Your task to perform on an android device: manage bookmarks in the chrome app Image 0: 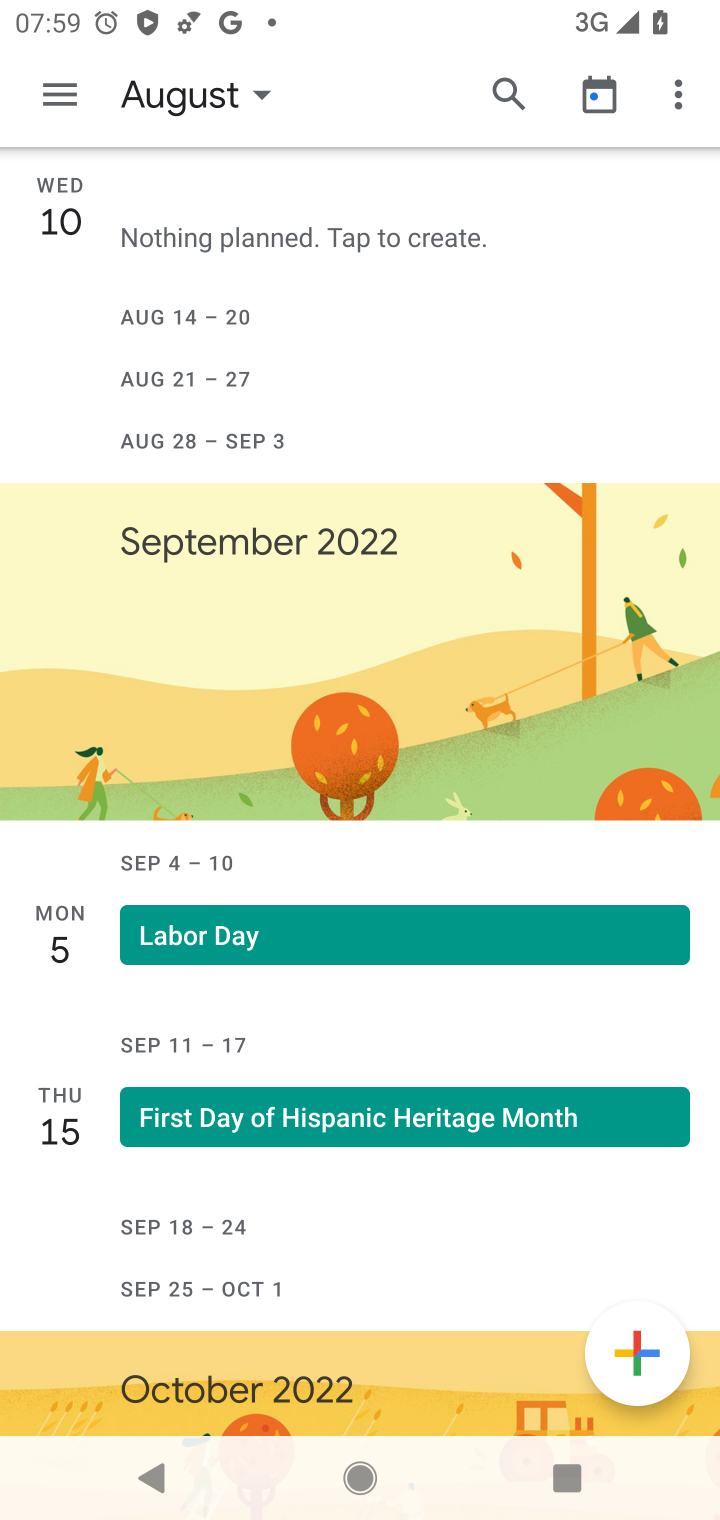
Step 0: press home button
Your task to perform on an android device: manage bookmarks in the chrome app Image 1: 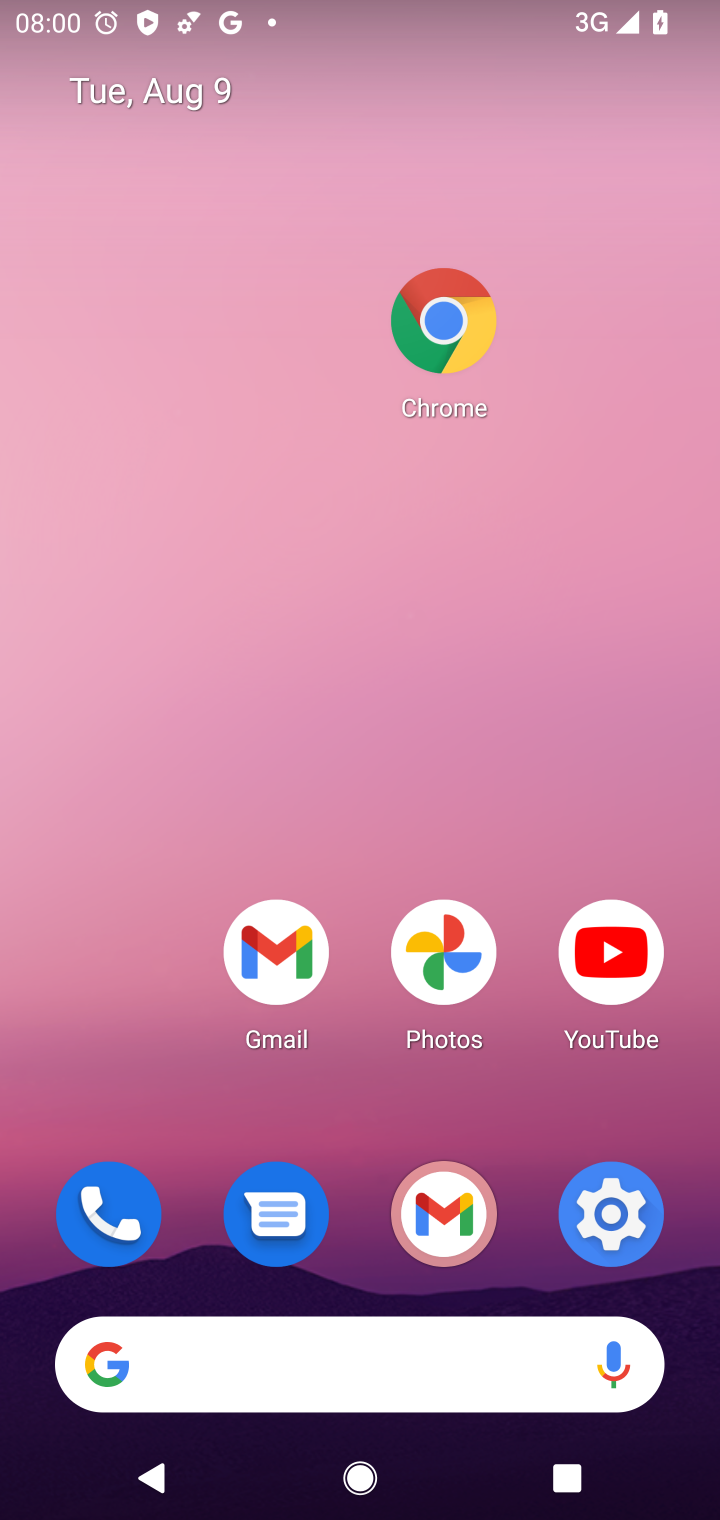
Step 1: click (414, 340)
Your task to perform on an android device: manage bookmarks in the chrome app Image 2: 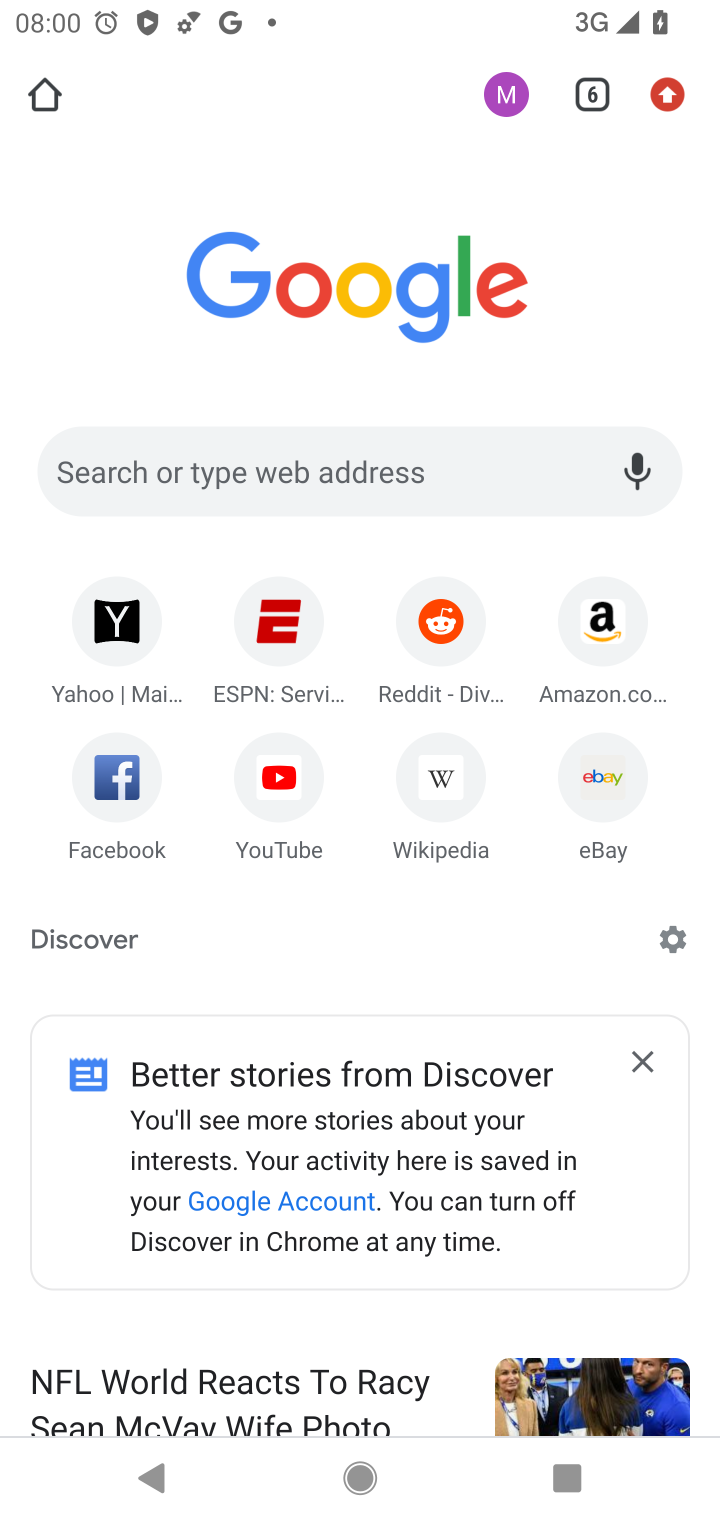
Step 2: click (658, 97)
Your task to perform on an android device: manage bookmarks in the chrome app Image 3: 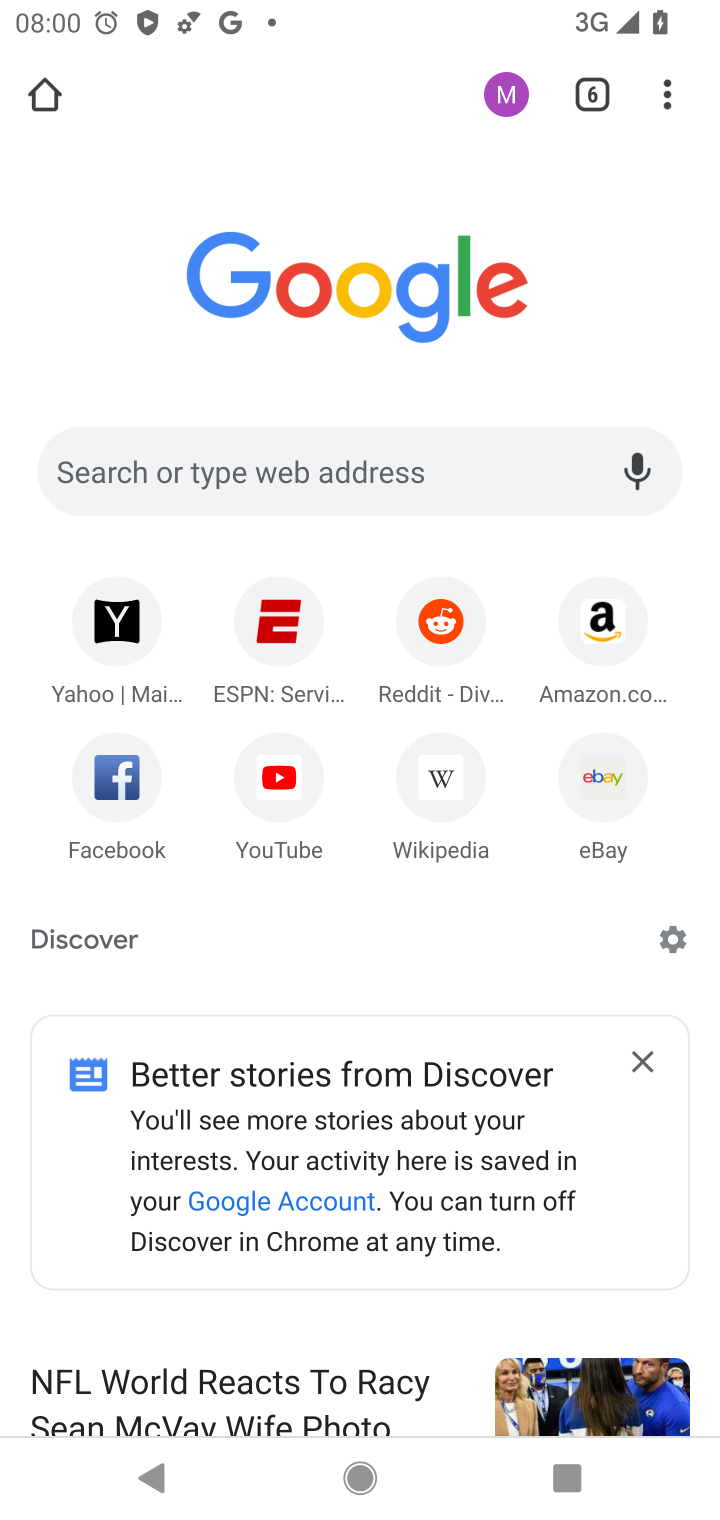
Step 3: click (648, 108)
Your task to perform on an android device: manage bookmarks in the chrome app Image 4: 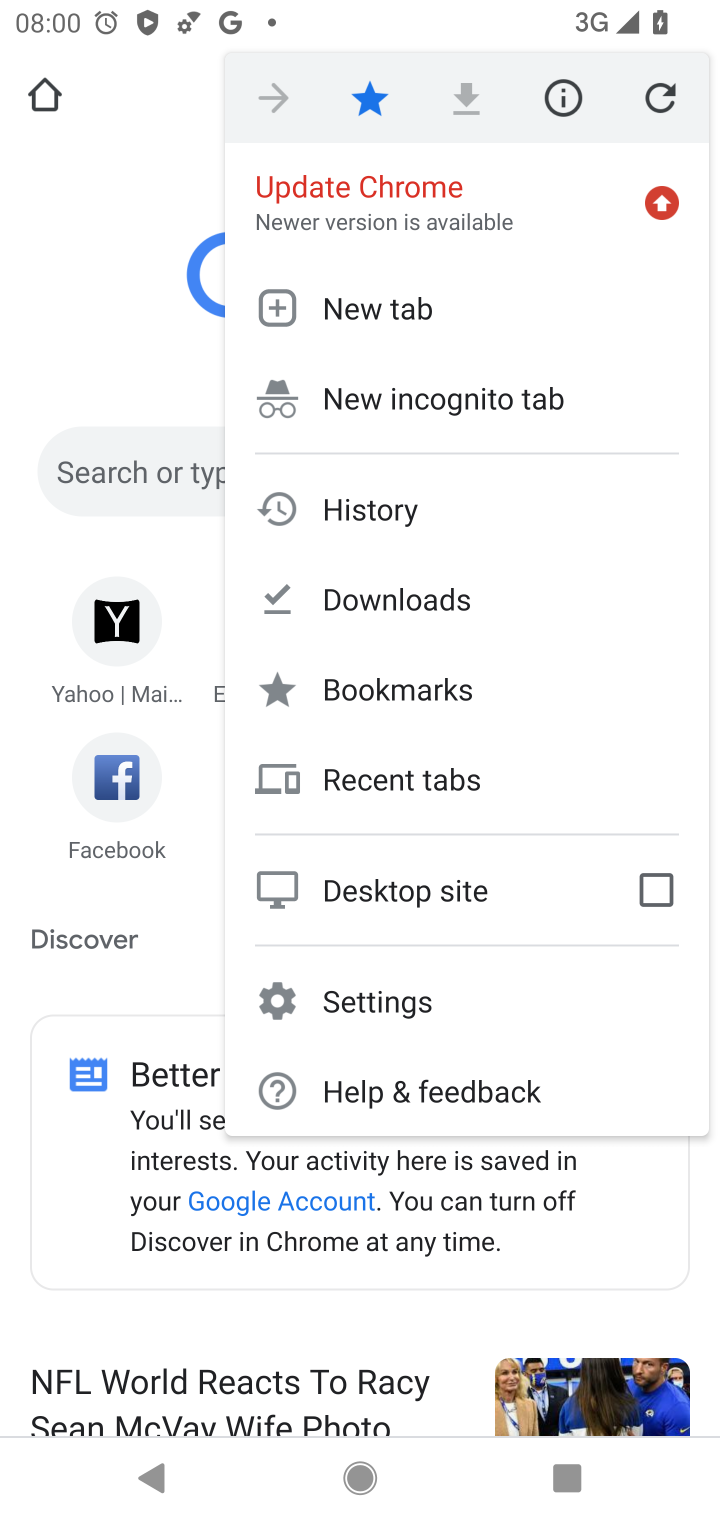
Step 4: click (364, 686)
Your task to perform on an android device: manage bookmarks in the chrome app Image 5: 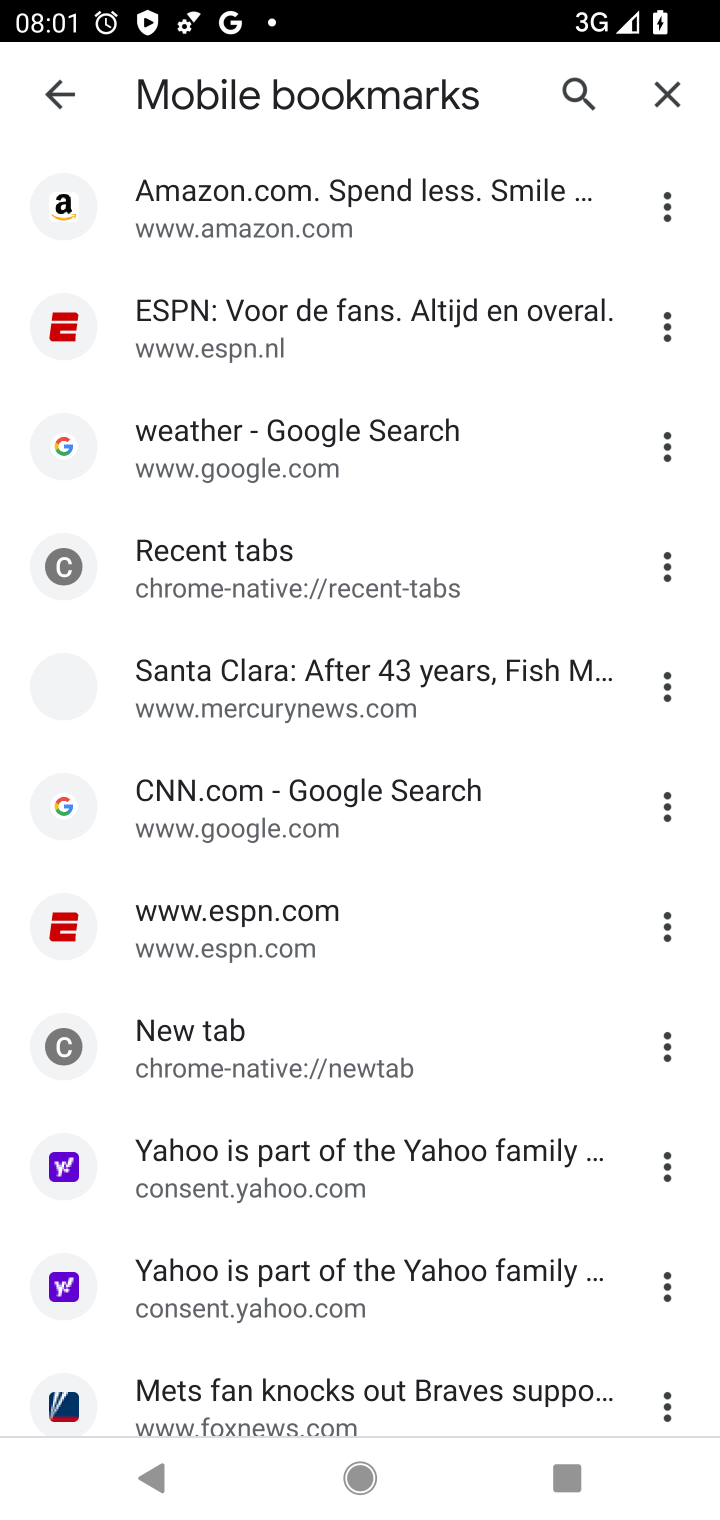
Step 5: task complete